Your task to perform on an android device: check data usage Image 0: 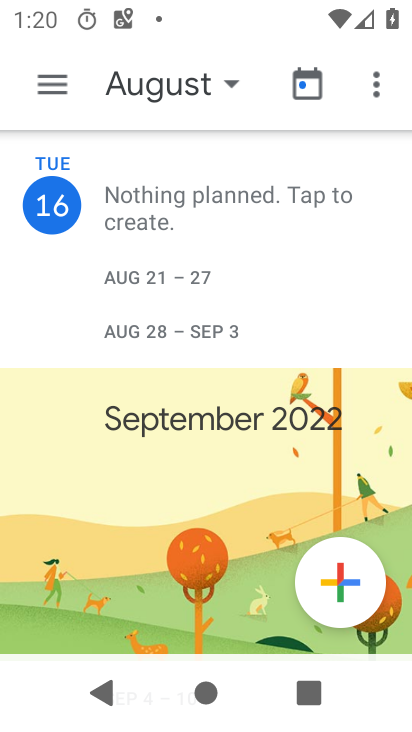
Step 0: press home button
Your task to perform on an android device: check data usage Image 1: 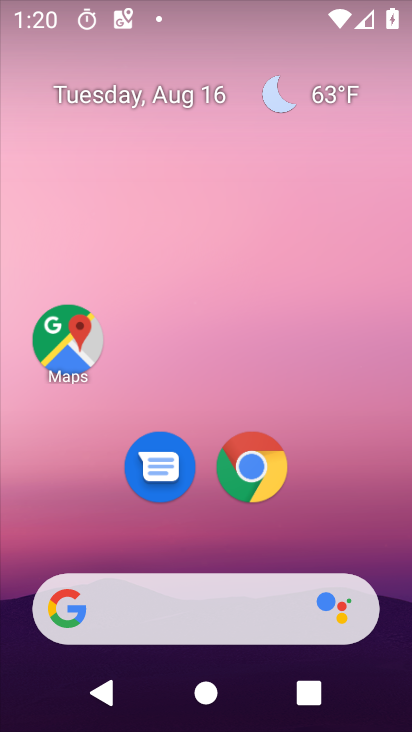
Step 1: drag from (383, 570) to (374, 192)
Your task to perform on an android device: check data usage Image 2: 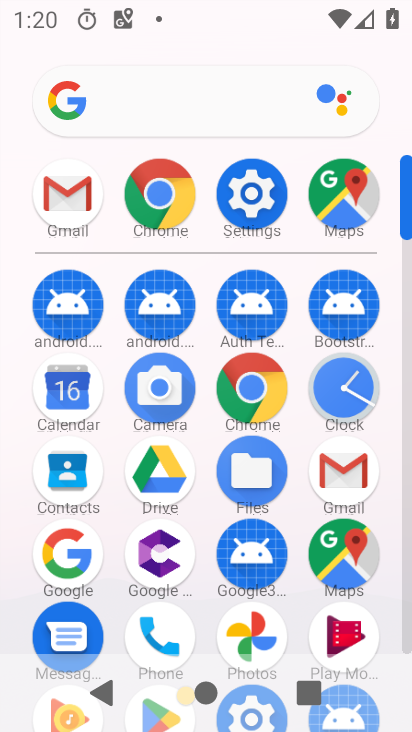
Step 2: click (263, 190)
Your task to perform on an android device: check data usage Image 3: 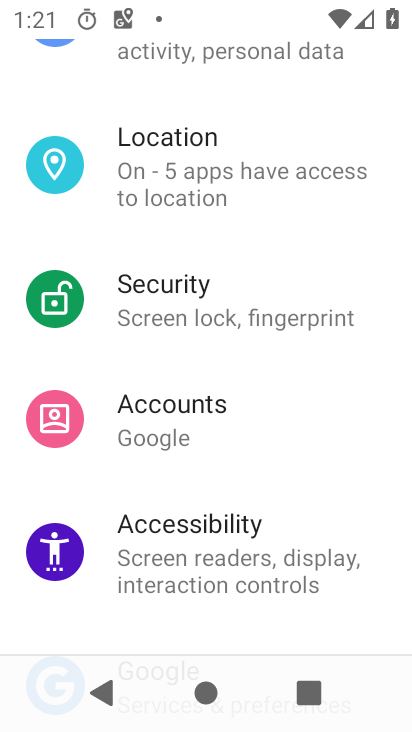
Step 3: drag from (342, 235) to (363, 446)
Your task to perform on an android device: check data usage Image 4: 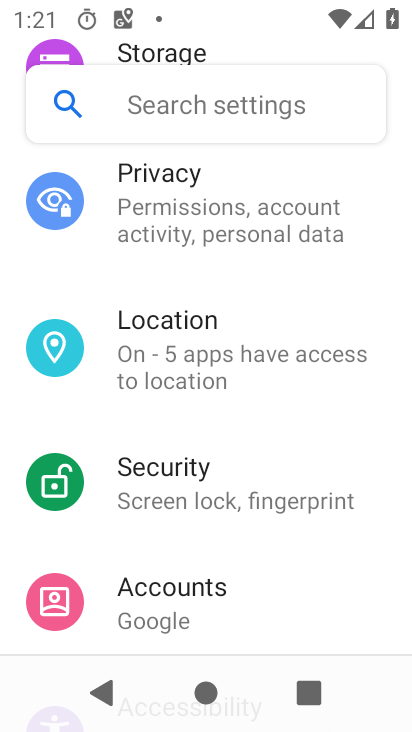
Step 4: drag from (362, 281) to (369, 475)
Your task to perform on an android device: check data usage Image 5: 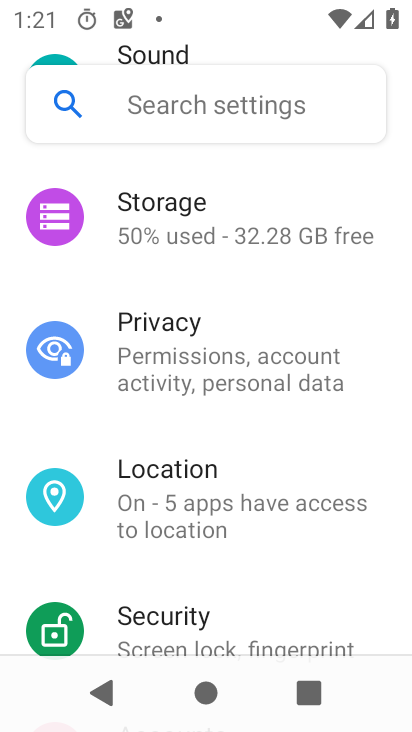
Step 5: drag from (377, 295) to (387, 430)
Your task to perform on an android device: check data usage Image 6: 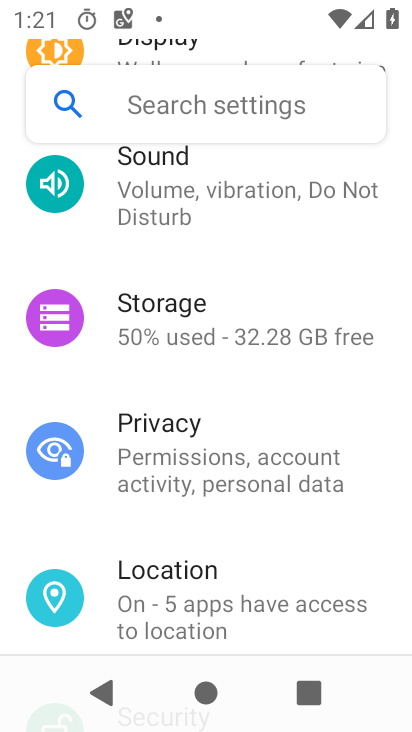
Step 6: drag from (373, 251) to (376, 382)
Your task to perform on an android device: check data usage Image 7: 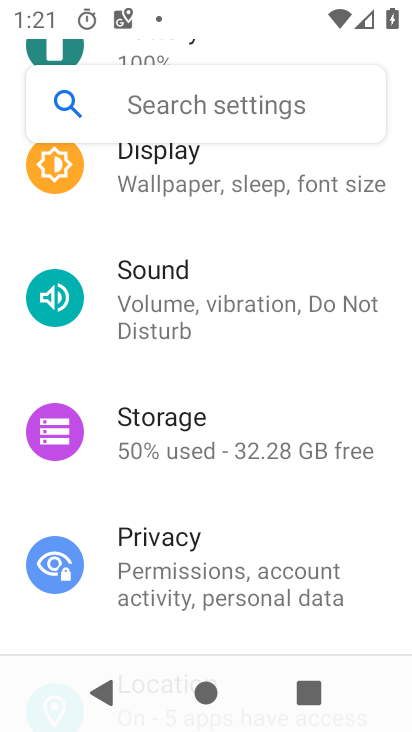
Step 7: drag from (372, 215) to (372, 375)
Your task to perform on an android device: check data usage Image 8: 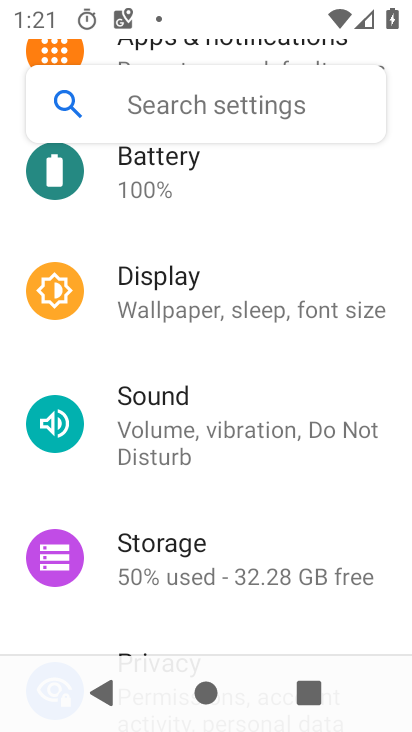
Step 8: drag from (364, 200) to (375, 355)
Your task to perform on an android device: check data usage Image 9: 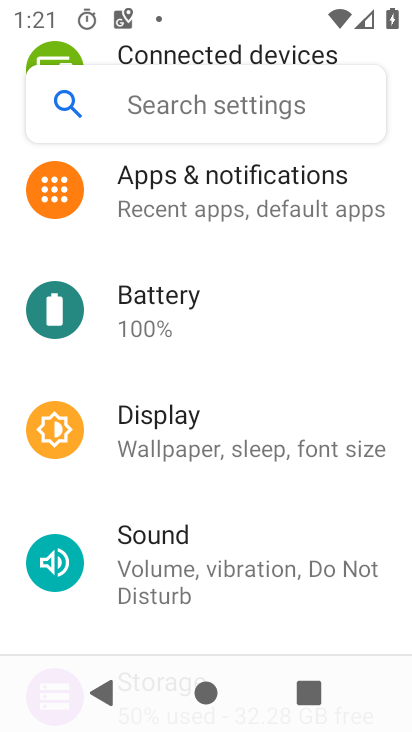
Step 9: drag from (379, 175) to (382, 334)
Your task to perform on an android device: check data usage Image 10: 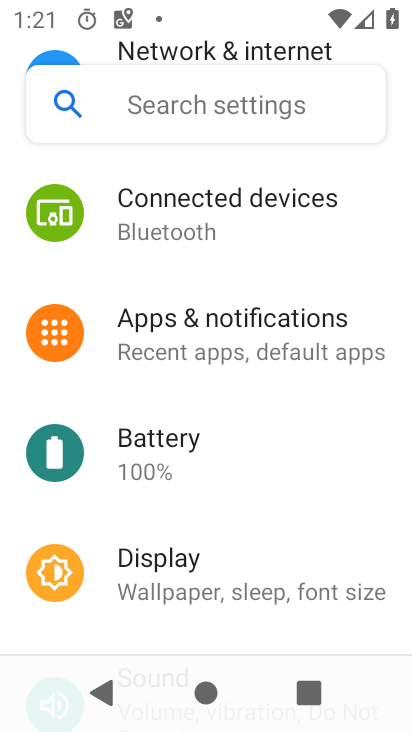
Step 10: drag from (362, 161) to (365, 315)
Your task to perform on an android device: check data usage Image 11: 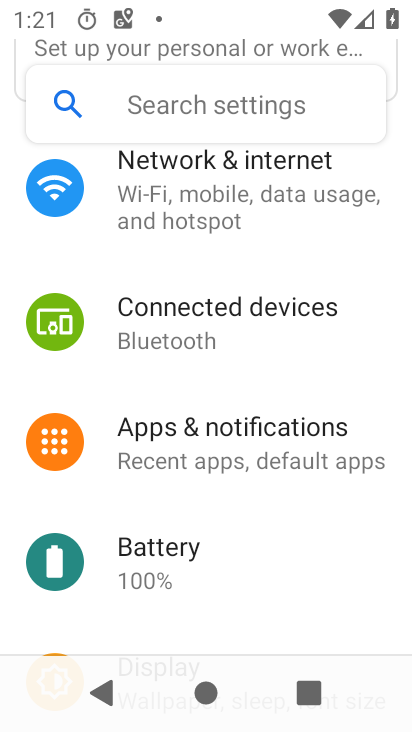
Step 11: drag from (378, 161) to (378, 297)
Your task to perform on an android device: check data usage Image 12: 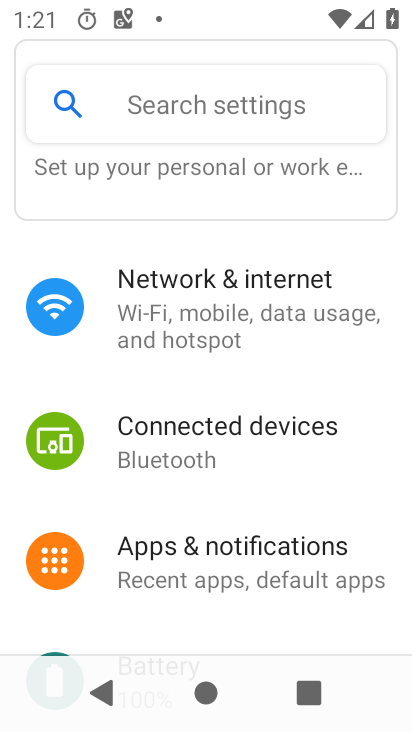
Step 12: click (297, 277)
Your task to perform on an android device: check data usage Image 13: 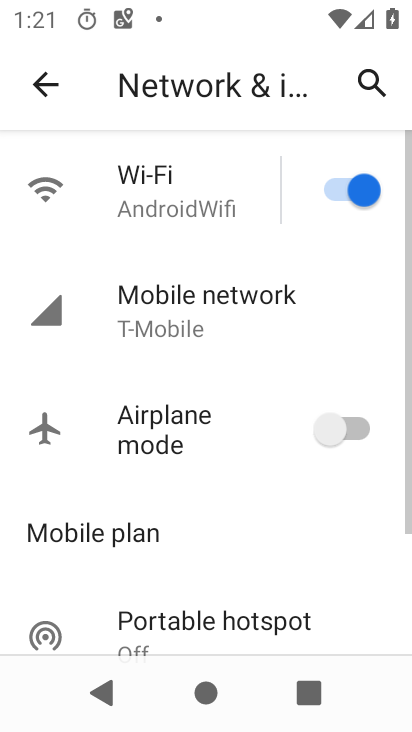
Step 13: drag from (250, 460) to (248, 384)
Your task to perform on an android device: check data usage Image 14: 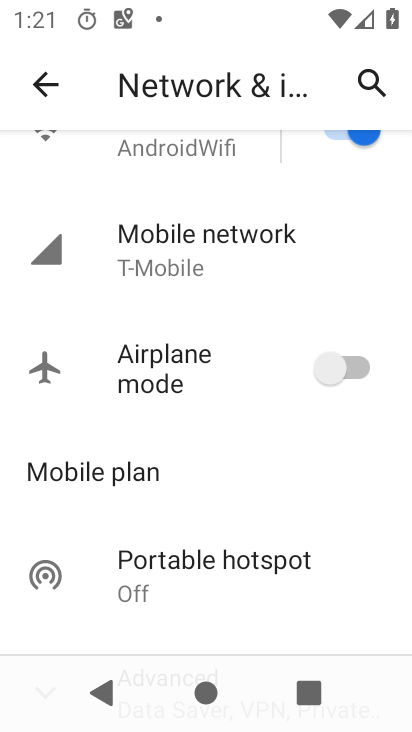
Step 14: click (234, 245)
Your task to perform on an android device: check data usage Image 15: 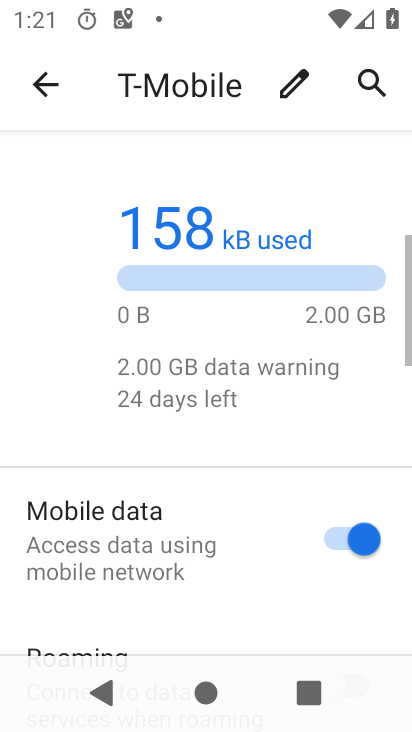
Step 15: drag from (260, 489) to (257, 350)
Your task to perform on an android device: check data usage Image 16: 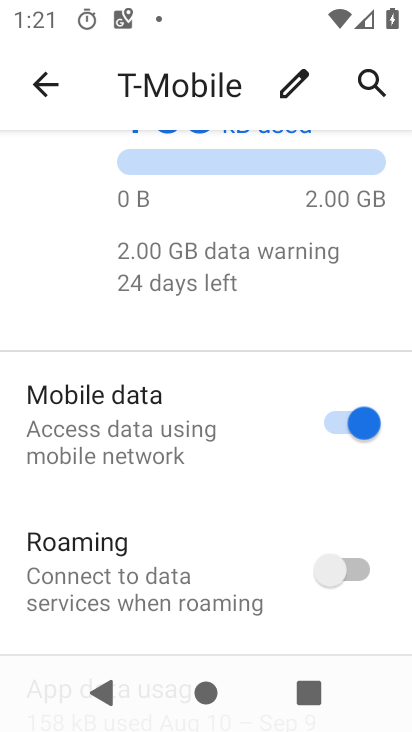
Step 16: drag from (228, 547) to (229, 395)
Your task to perform on an android device: check data usage Image 17: 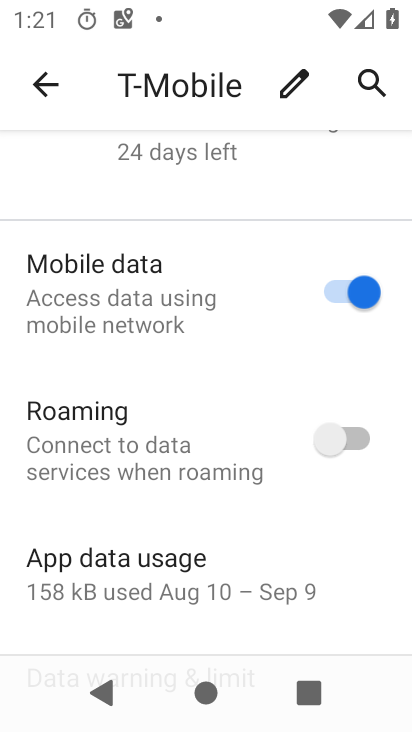
Step 17: drag from (209, 600) to (237, 418)
Your task to perform on an android device: check data usage Image 18: 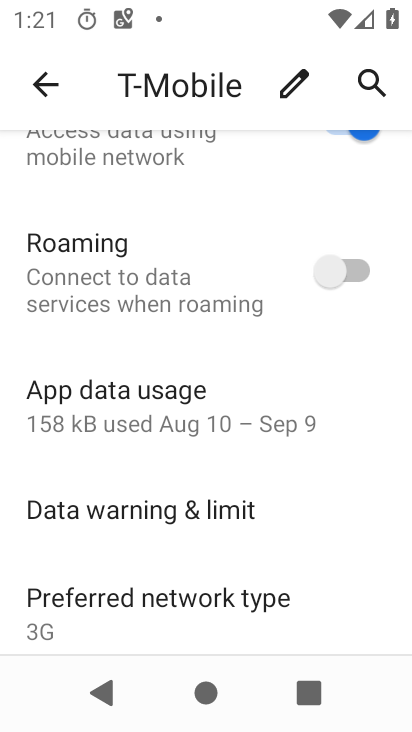
Step 18: click (222, 414)
Your task to perform on an android device: check data usage Image 19: 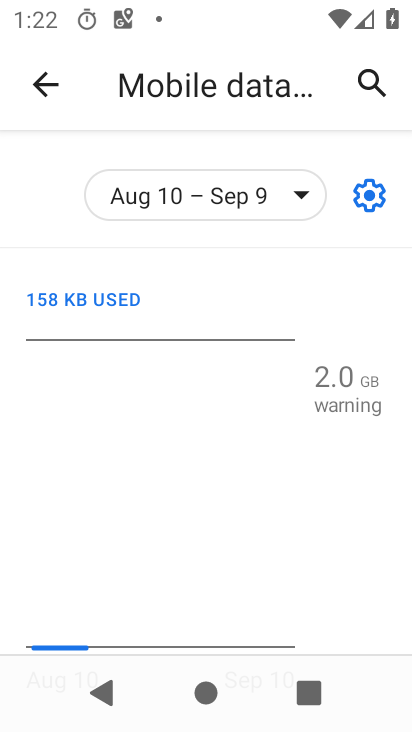
Step 19: task complete